Your task to perform on an android device: Open the phone app and click the voicemail tab. Image 0: 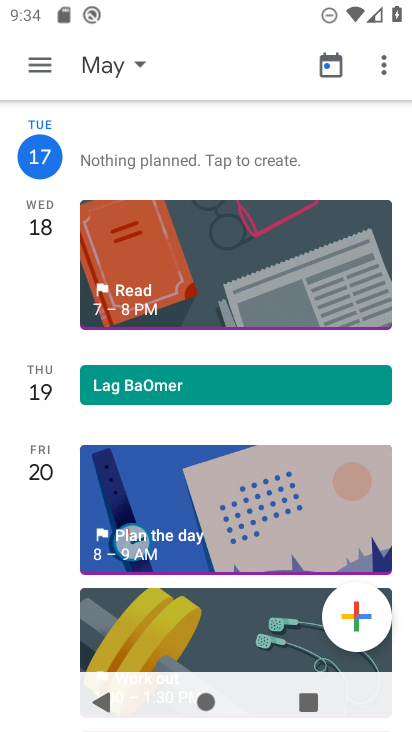
Step 0: press home button
Your task to perform on an android device: Open the phone app and click the voicemail tab. Image 1: 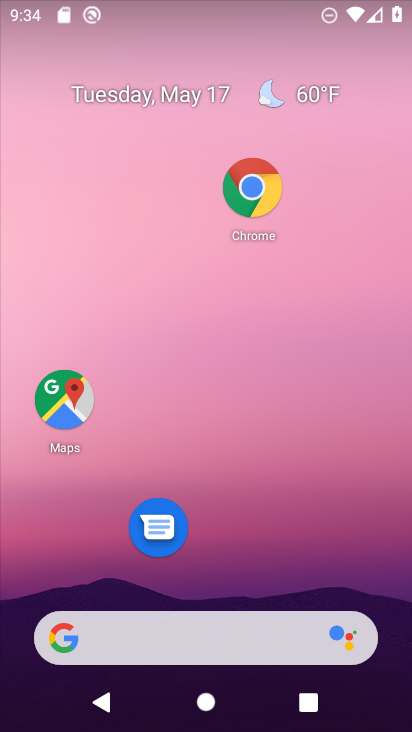
Step 1: drag from (333, 573) to (270, 146)
Your task to perform on an android device: Open the phone app and click the voicemail tab. Image 2: 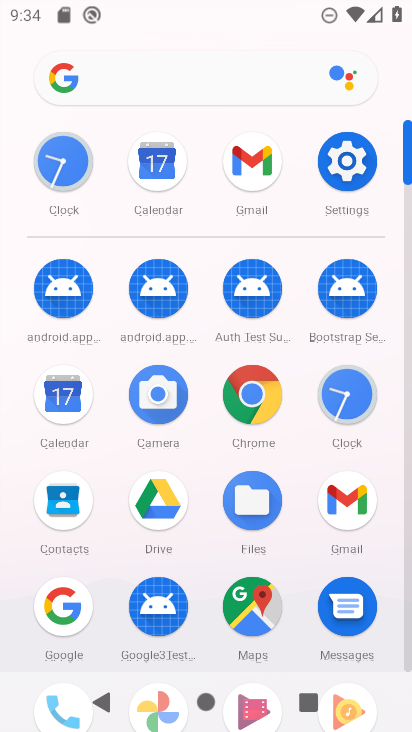
Step 2: click (411, 660)
Your task to perform on an android device: Open the phone app and click the voicemail tab. Image 3: 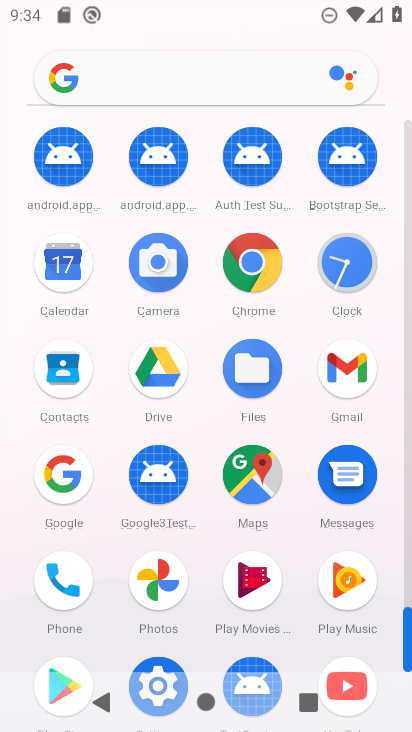
Step 3: click (58, 593)
Your task to perform on an android device: Open the phone app and click the voicemail tab. Image 4: 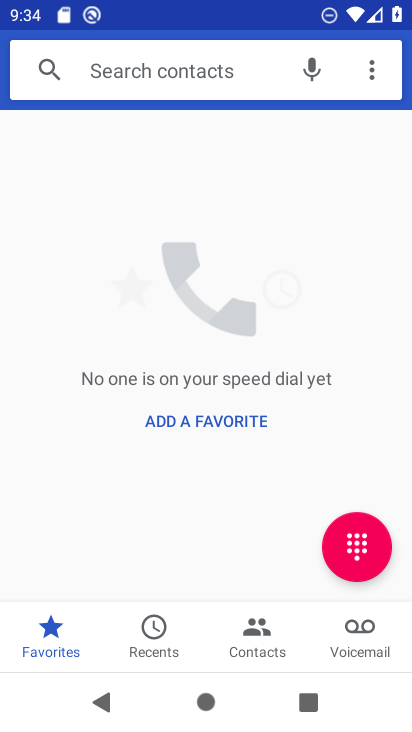
Step 4: click (351, 638)
Your task to perform on an android device: Open the phone app and click the voicemail tab. Image 5: 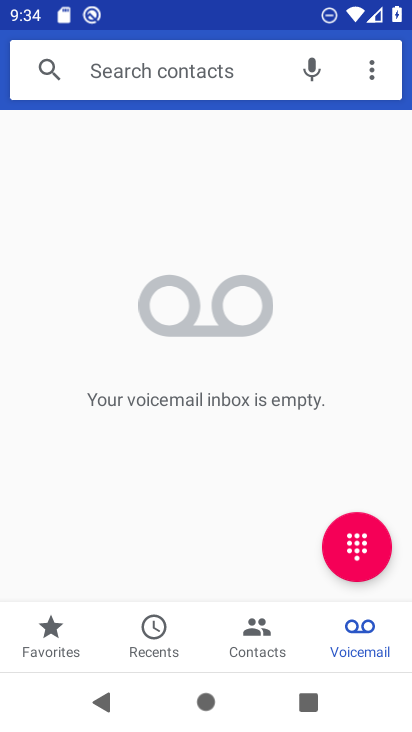
Step 5: task complete